Your task to perform on an android device: Is it going to rain this weekend? Image 0: 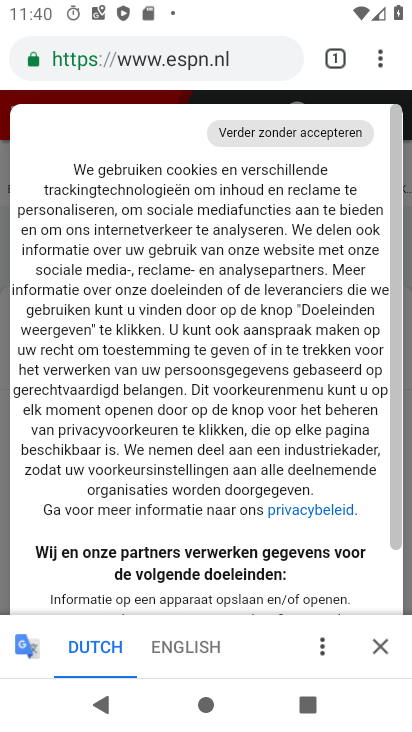
Step 0: press home button
Your task to perform on an android device: Is it going to rain this weekend? Image 1: 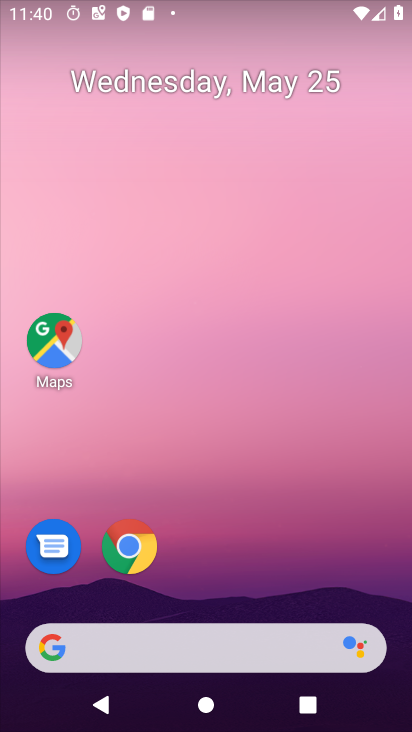
Step 1: click (203, 646)
Your task to perform on an android device: Is it going to rain this weekend? Image 2: 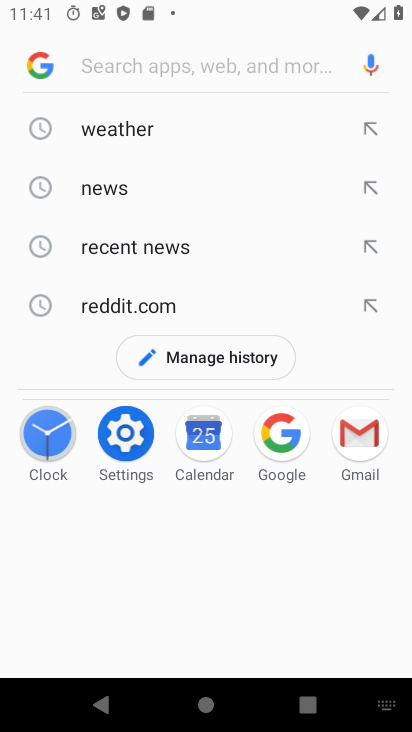
Step 2: type "is it going to rain this weekend"
Your task to perform on an android device: Is it going to rain this weekend? Image 3: 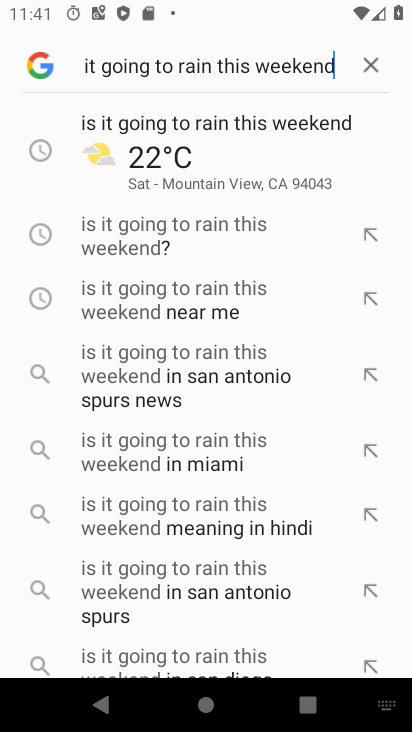
Step 3: click (173, 149)
Your task to perform on an android device: Is it going to rain this weekend? Image 4: 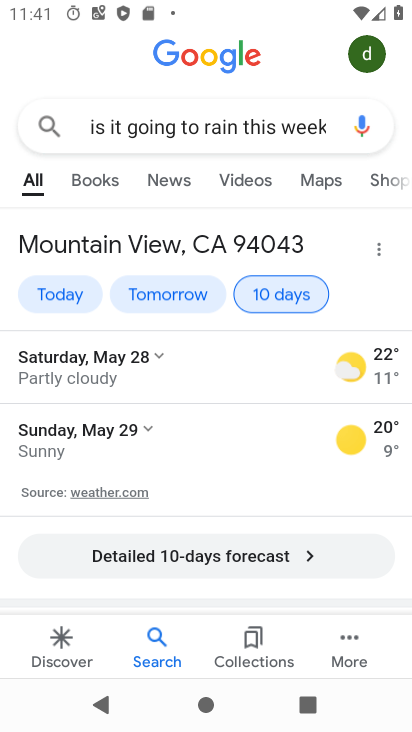
Step 4: task complete